Your task to perform on an android device: Open calendar and show me the second week of next month Image 0: 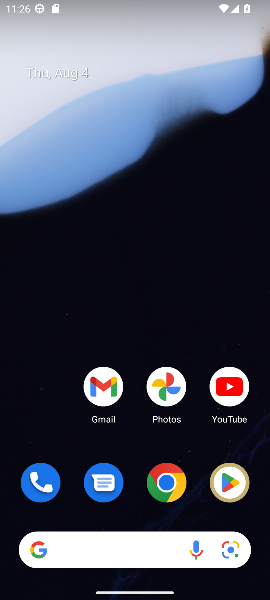
Step 0: drag from (130, 443) to (130, 140)
Your task to perform on an android device: Open calendar and show me the second week of next month Image 1: 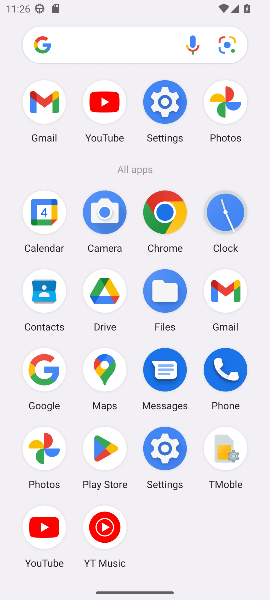
Step 1: drag from (135, 231) to (142, 419)
Your task to perform on an android device: Open calendar and show me the second week of next month Image 2: 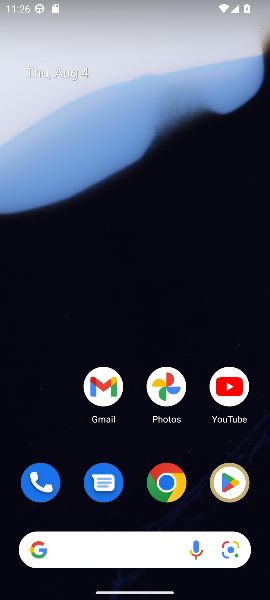
Step 2: drag from (139, 431) to (142, 90)
Your task to perform on an android device: Open calendar and show me the second week of next month Image 3: 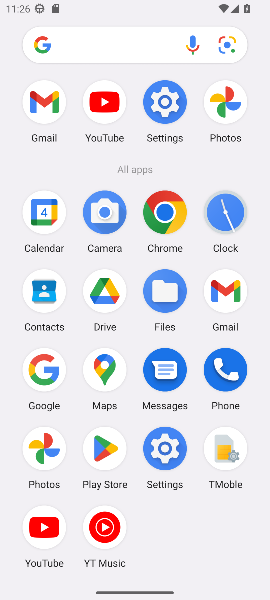
Step 3: click (48, 235)
Your task to perform on an android device: Open calendar and show me the second week of next month Image 4: 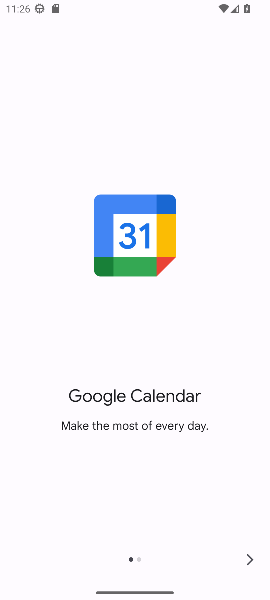
Step 4: click (247, 555)
Your task to perform on an android device: Open calendar and show me the second week of next month Image 5: 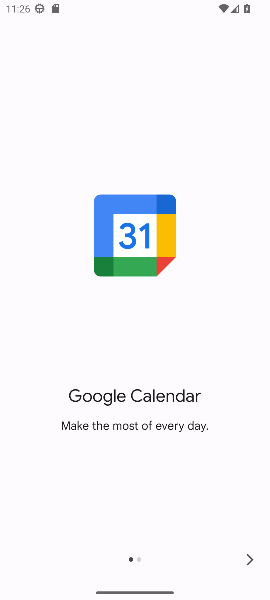
Step 5: click (247, 555)
Your task to perform on an android device: Open calendar and show me the second week of next month Image 6: 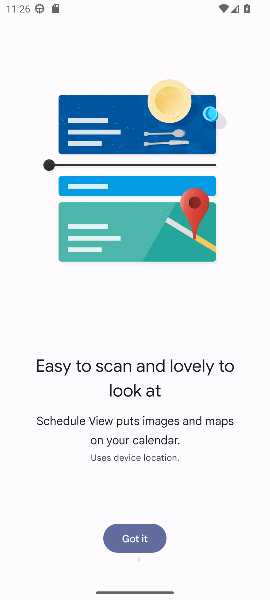
Step 6: click (246, 555)
Your task to perform on an android device: Open calendar and show me the second week of next month Image 7: 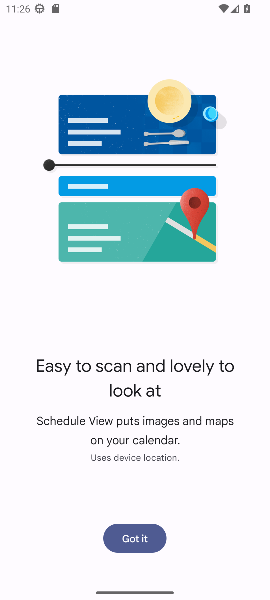
Step 7: click (246, 555)
Your task to perform on an android device: Open calendar and show me the second week of next month Image 8: 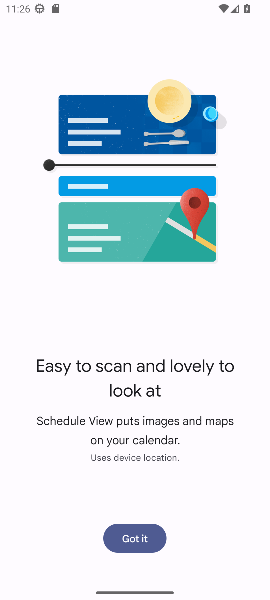
Step 8: click (147, 541)
Your task to perform on an android device: Open calendar and show me the second week of next month Image 9: 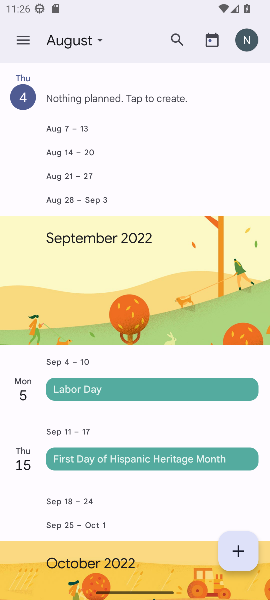
Step 9: click (96, 48)
Your task to perform on an android device: Open calendar and show me the second week of next month Image 10: 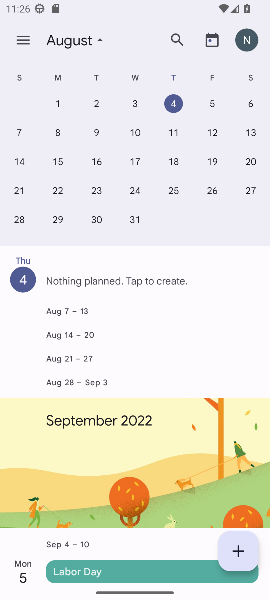
Step 10: drag from (234, 146) to (31, 151)
Your task to perform on an android device: Open calendar and show me the second week of next month Image 11: 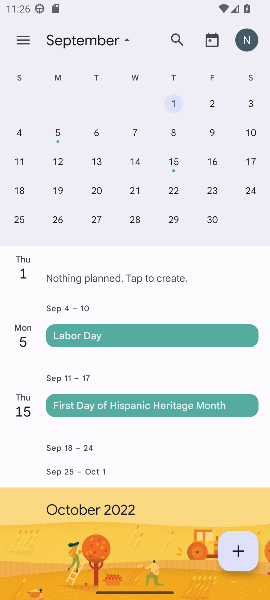
Step 11: click (26, 133)
Your task to perform on an android device: Open calendar and show me the second week of next month Image 12: 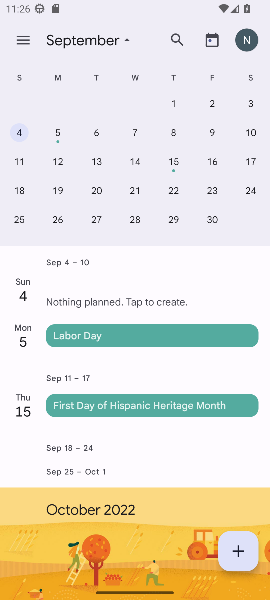
Step 12: click (66, 141)
Your task to perform on an android device: Open calendar and show me the second week of next month Image 13: 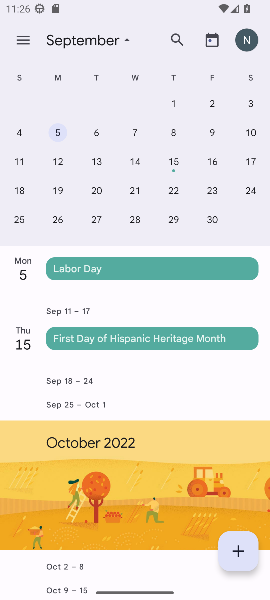
Step 13: task complete